Your task to perform on an android device: toggle airplane mode Image 0: 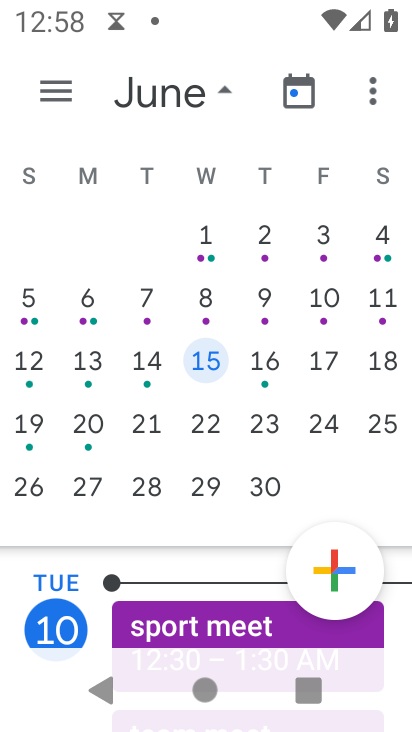
Step 0: press home button
Your task to perform on an android device: toggle airplane mode Image 1: 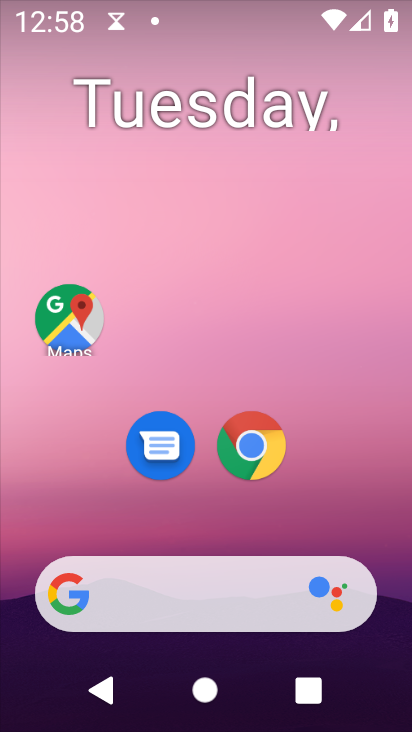
Step 1: drag from (252, 554) to (259, 111)
Your task to perform on an android device: toggle airplane mode Image 2: 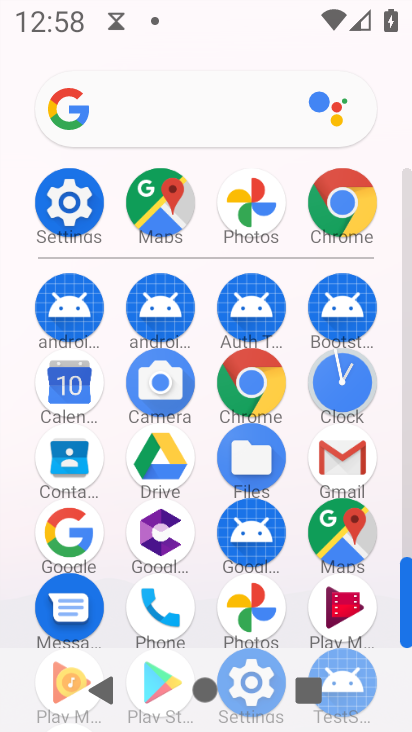
Step 2: click (90, 217)
Your task to perform on an android device: toggle airplane mode Image 3: 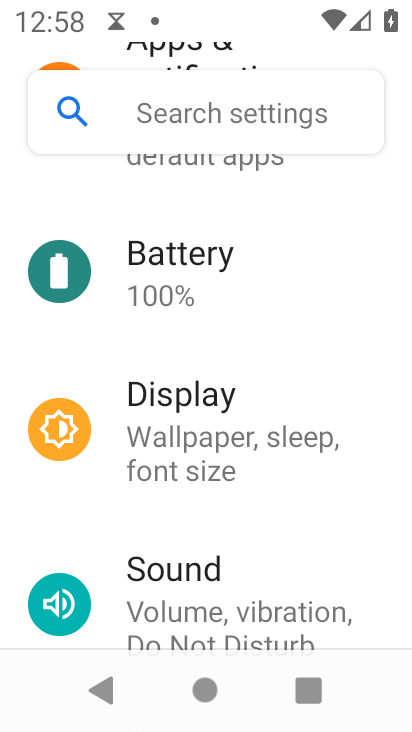
Step 3: drag from (346, 307) to (357, 668)
Your task to perform on an android device: toggle airplane mode Image 4: 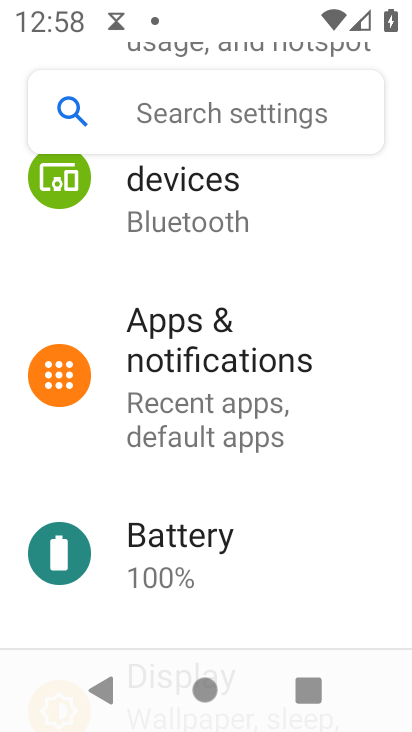
Step 4: drag from (298, 277) to (312, 704)
Your task to perform on an android device: toggle airplane mode Image 5: 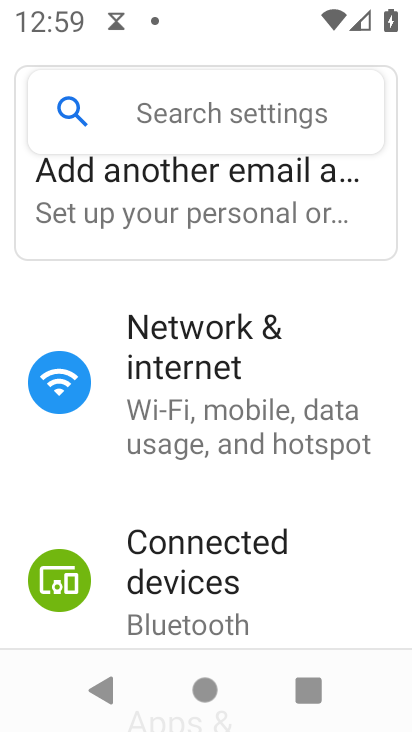
Step 5: drag from (249, 217) to (284, 498)
Your task to perform on an android device: toggle airplane mode Image 6: 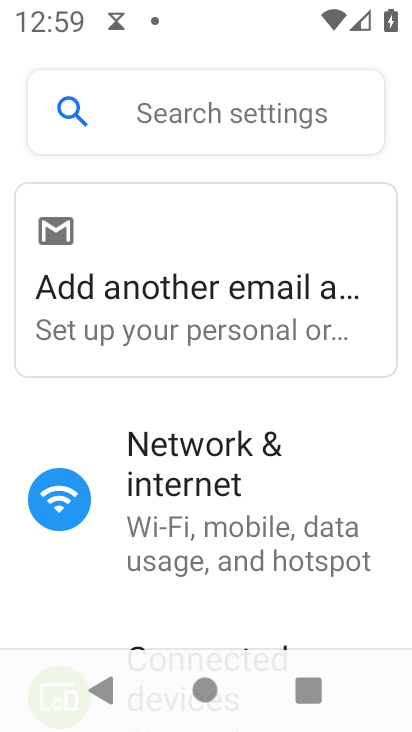
Step 6: click (250, 482)
Your task to perform on an android device: toggle airplane mode Image 7: 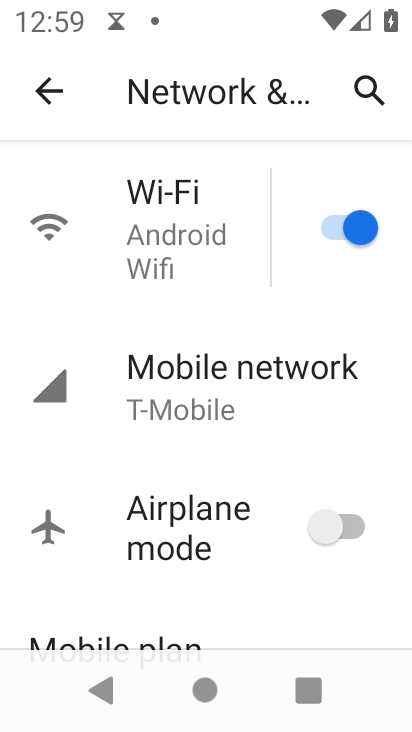
Step 7: click (343, 531)
Your task to perform on an android device: toggle airplane mode Image 8: 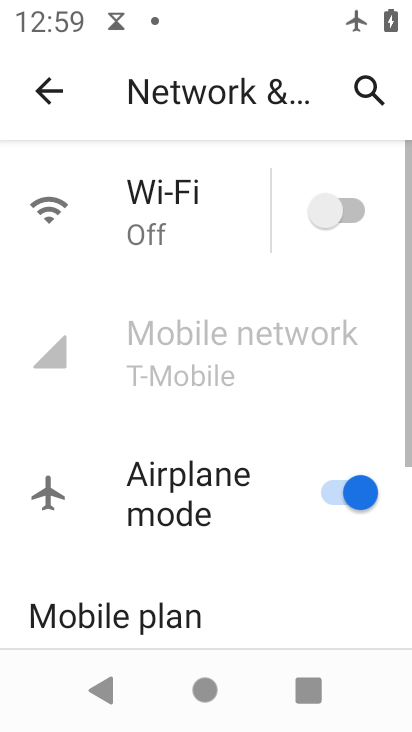
Step 8: task complete